Your task to perform on an android device: What's the weather today? Image 0: 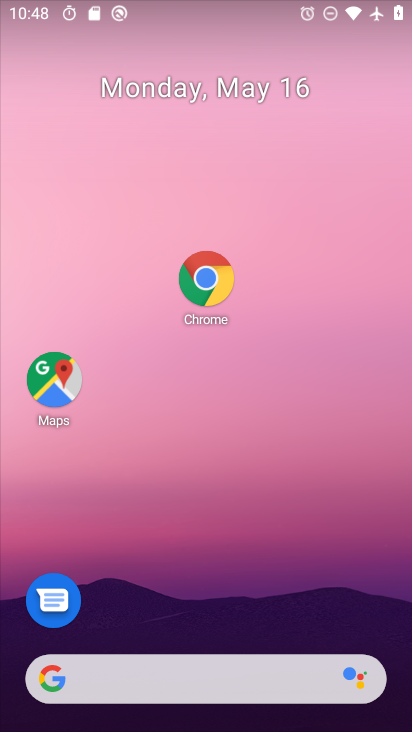
Step 0: click (62, 679)
Your task to perform on an android device: What's the weather today? Image 1: 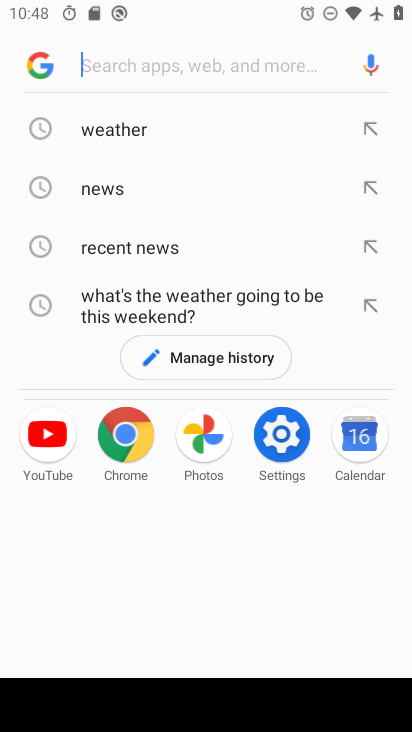
Step 1: click (126, 135)
Your task to perform on an android device: What's the weather today? Image 2: 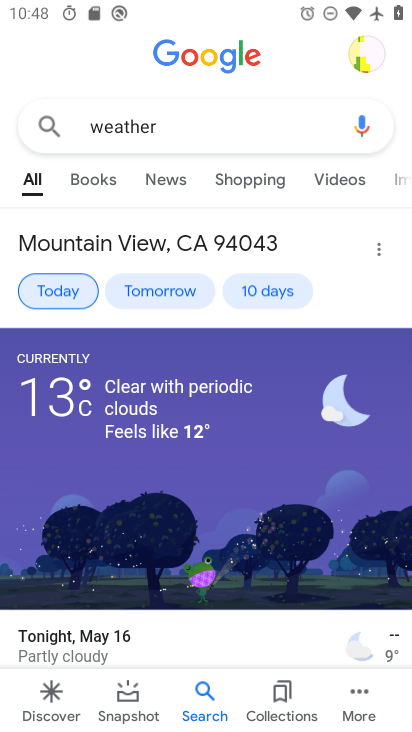
Step 2: task complete